Your task to perform on an android device: Clear the shopping cart on bestbuy.com. Add razer blade to the cart on bestbuy.com Image 0: 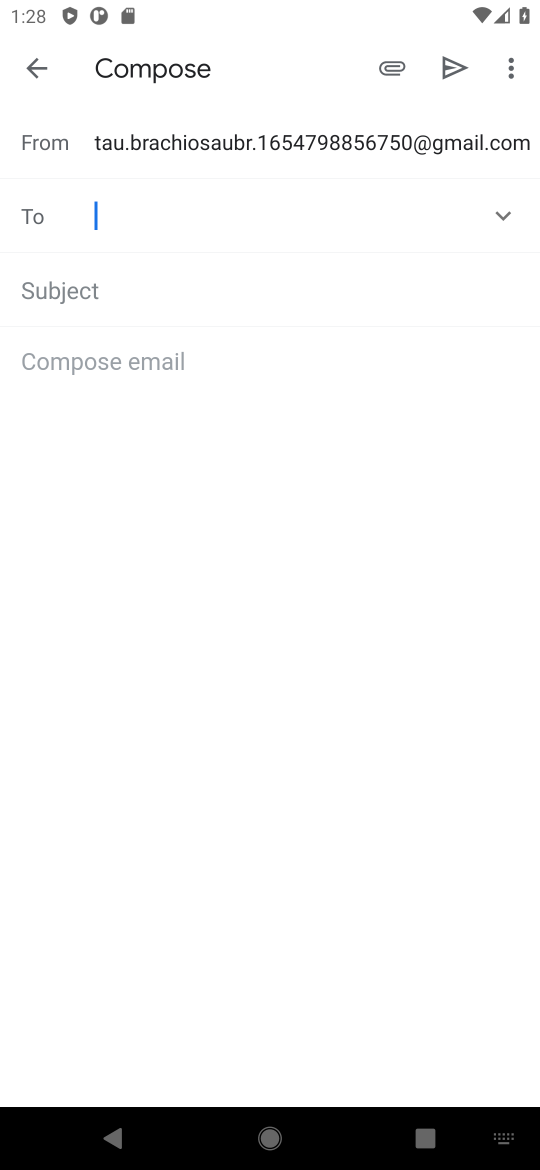
Step 0: press home button
Your task to perform on an android device: Clear the shopping cart on bestbuy.com. Add razer blade to the cart on bestbuy.com Image 1: 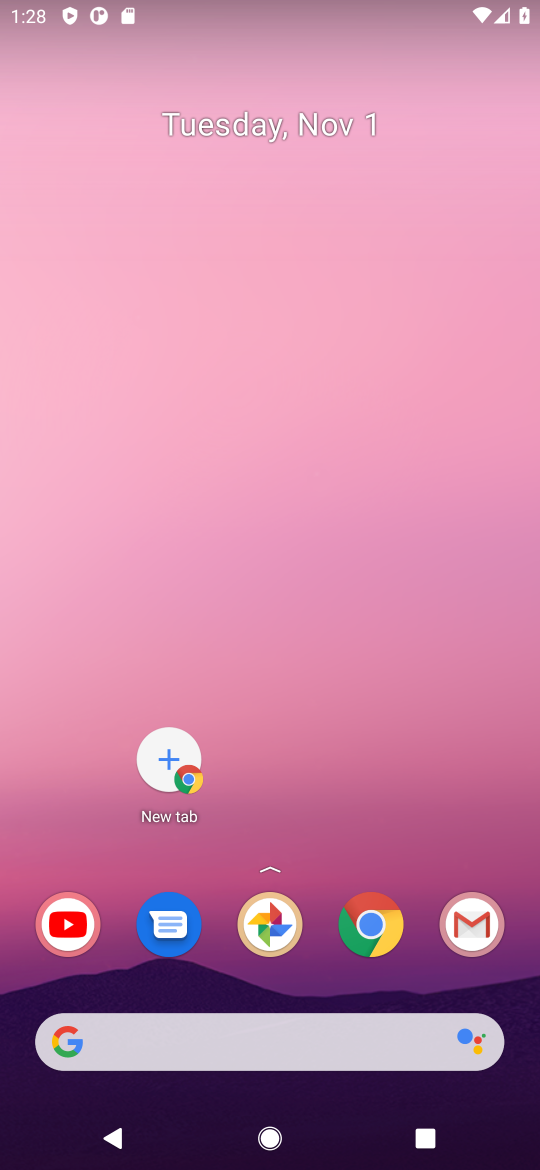
Step 1: click (369, 937)
Your task to perform on an android device: Clear the shopping cart on bestbuy.com. Add razer blade to the cart on bestbuy.com Image 2: 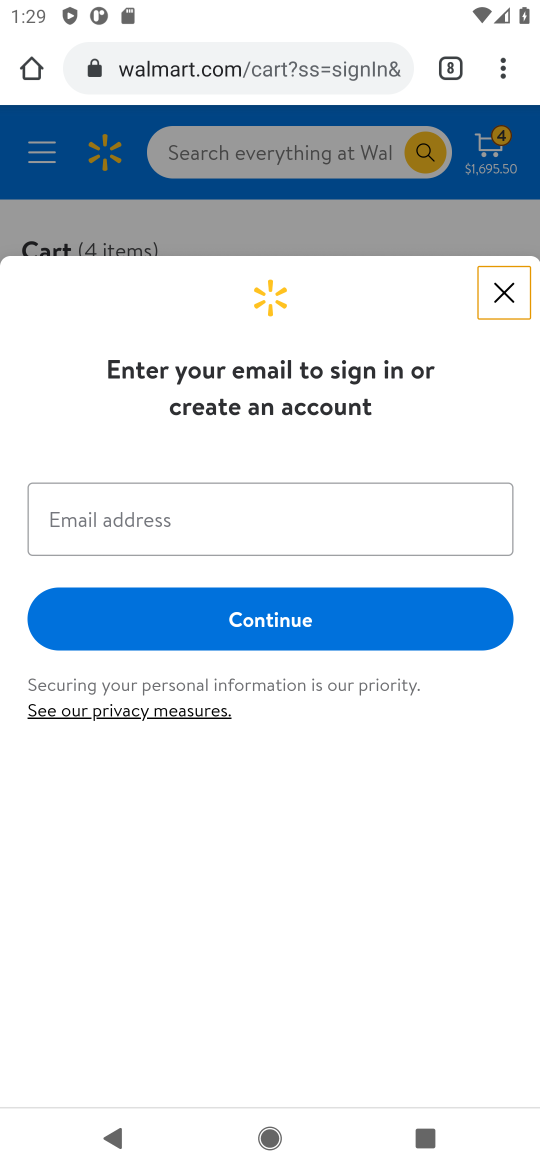
Step 2: click (235, 68)
Your task to perform on an android device: Clear the shopping cart on bestbuy.com. Add razer blade to the cart on bestbuy.com Image 3: 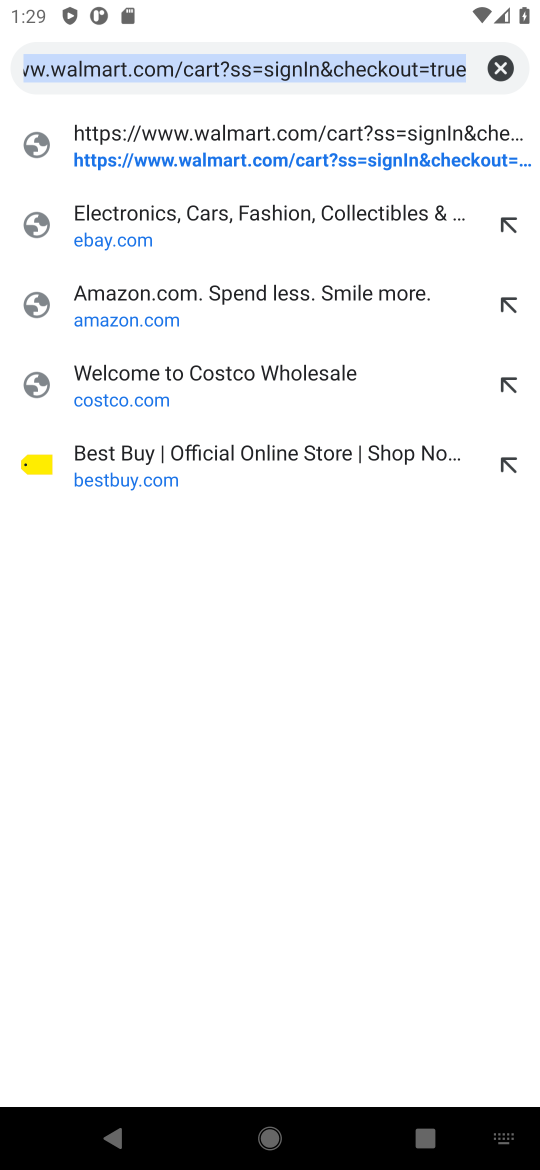
Step 3: click (493, 70)
Your task to perform on an android device: Clear the shopping cart on bestbuy.com. Add razer blade to the cart on bestbuy.com Image 4: 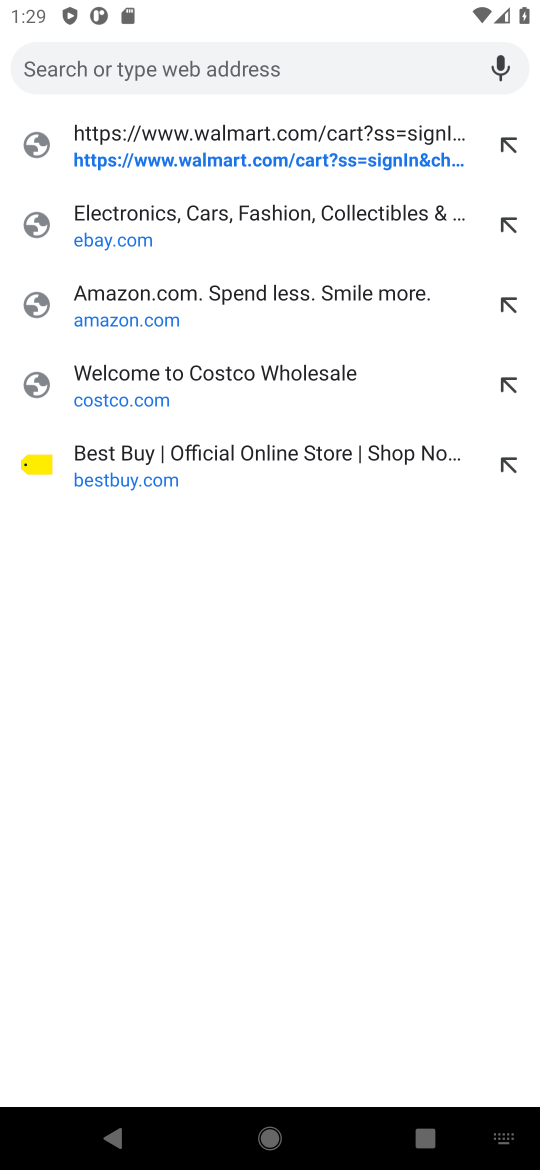
Step 4: click (114, 483)
Your task to perform on an android device: Clear the shopping cart on bestbuy.com. Add razer blade to the cart on bestbuy.com Image 5: 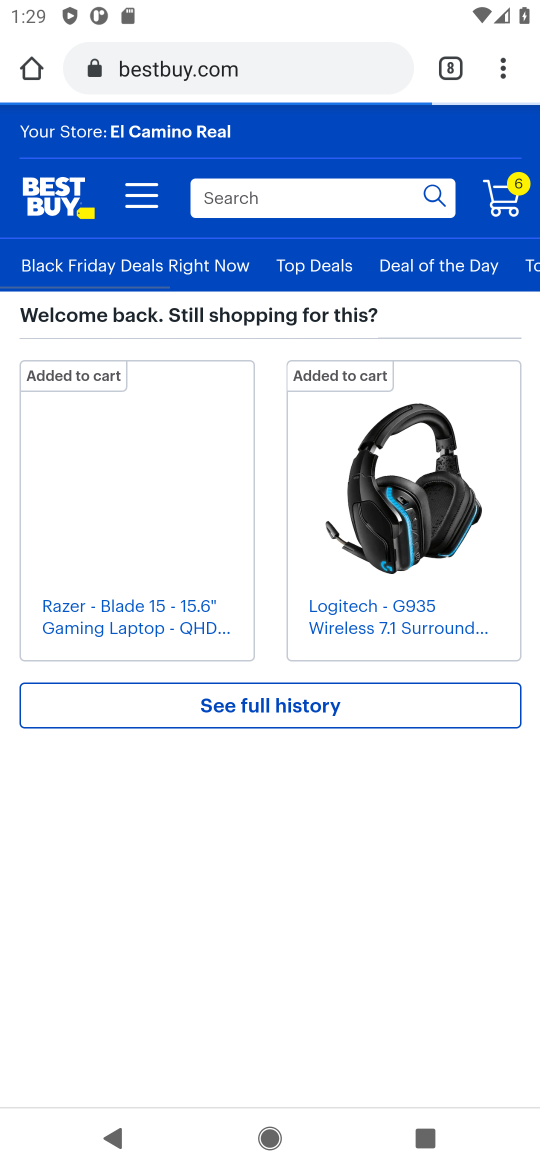
Step 5: click (505, 286)
Your task to perform on an android device: Clear the shopping cart on bestbuy.com. Add razer blade to the cart on bestbuy.com Image 6: 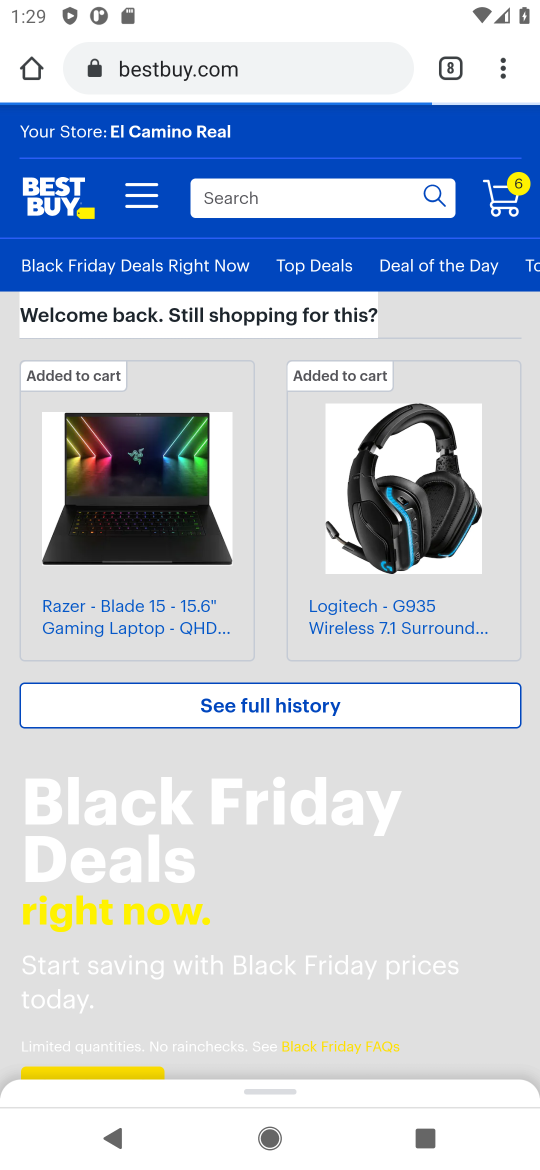
Step 6: click (247, 204)
Your task to perform on an android device: Clear the shopping cart on bestbuy.com. Add razer blade to the cart on bestbuy.com Image 7: 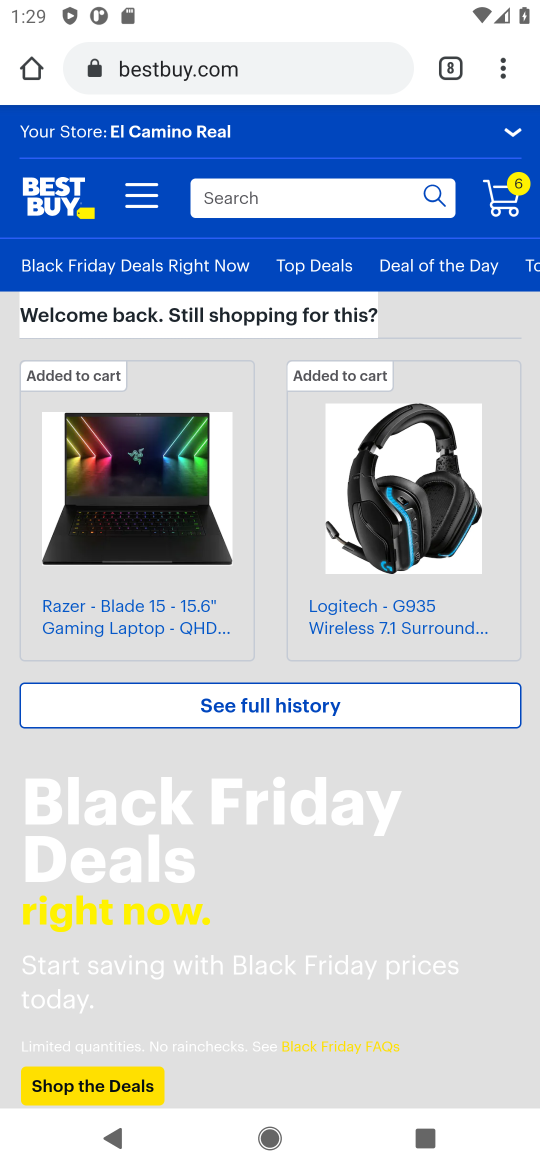
Step 7: click (232, 197)
Your task to perform on an android device: Clear the shopping cart on bestbuy.com. Add razer blade to the cart on bestbuy.com Image 8: 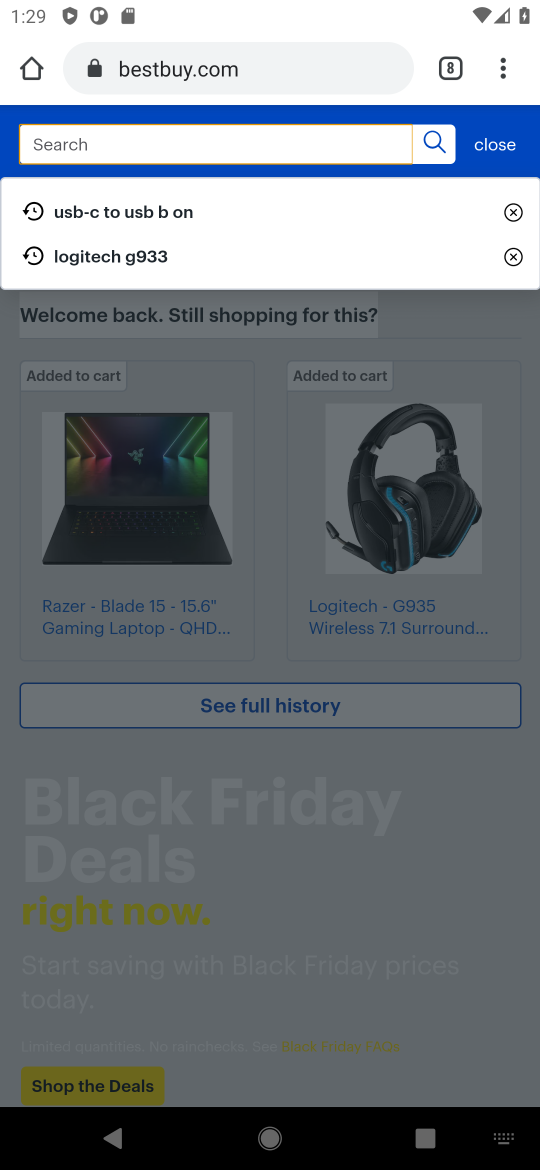
Step 8: type "razer blade"
Your task to perform on an android device: Clear the shopping cart on bestbuy.com. Add razer blade to the cart on bestbuy.com Image 9: 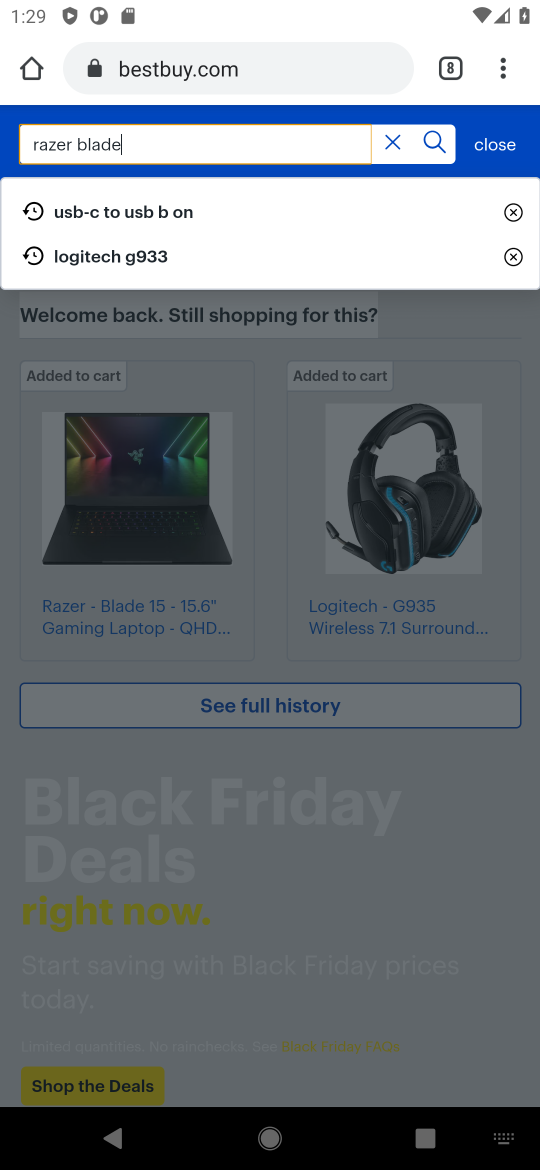
Step 9: type ""
Your task to perform on an android device: Clear the shopping cart on bestbuy.com. Add razer blade to the cart on bestbuy.com Image 10: 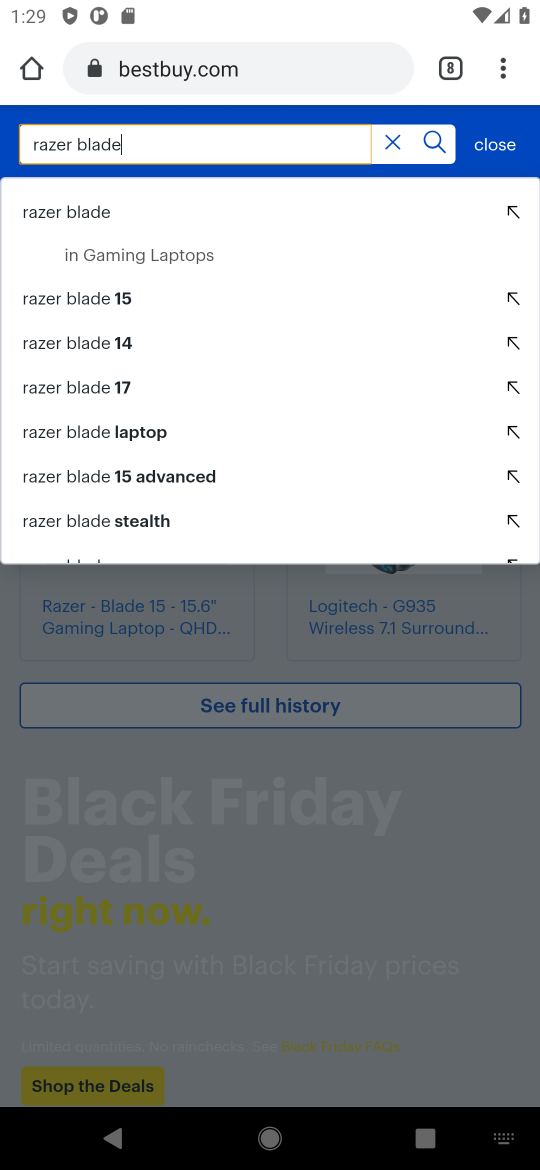
Step 10: click (31, 295)
Your task to perform on an android device: Clear the shopping cart on bestbuy.com. Add razer blade to the cart on bestbuy.com Image 11: 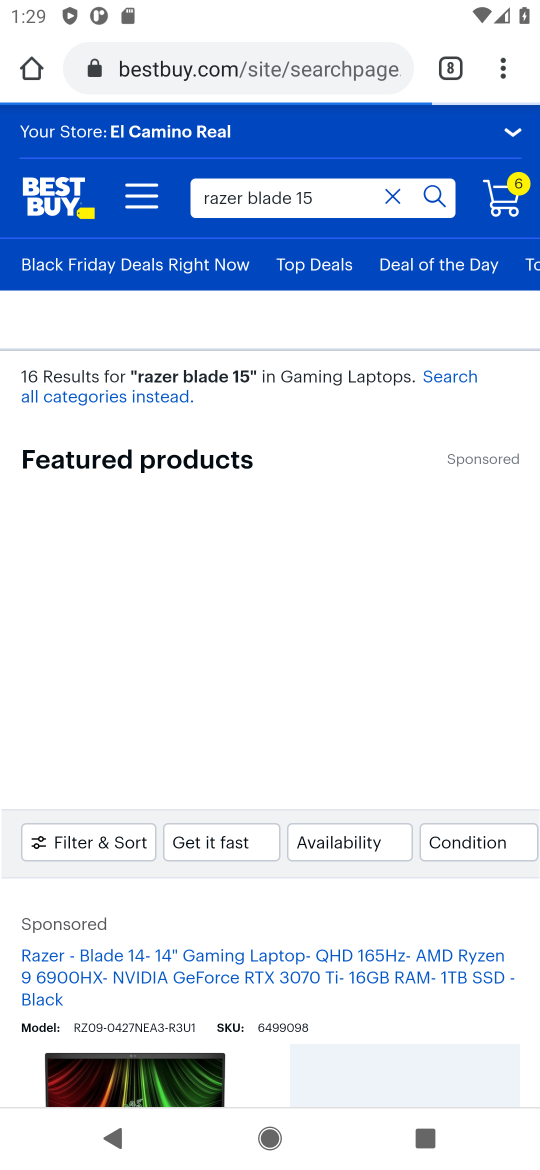
Step 11: drag from (215, 924) to (245, 313)
Your task to perform on an android device: Clear the shopping cart on bestbuy.com. Add razer blade to the cart on bestbuy.com Image 12: 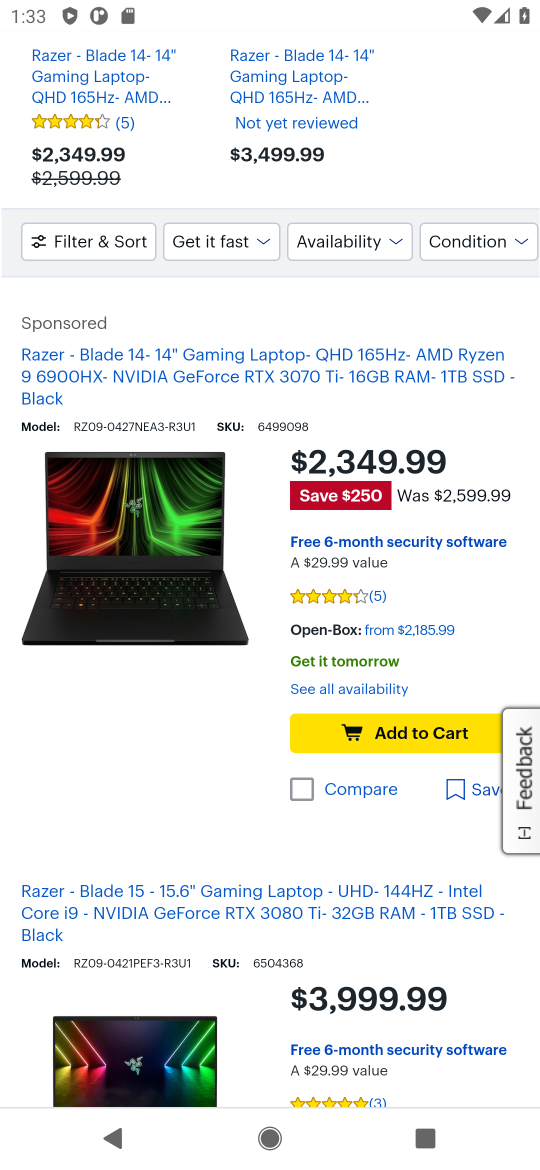
Step 12: click (406, 740)
Your task to perform on an android device: Clear the shopping cart on bestbuy.com. Add razer blade to the cart on bestbuy.com Image 13: 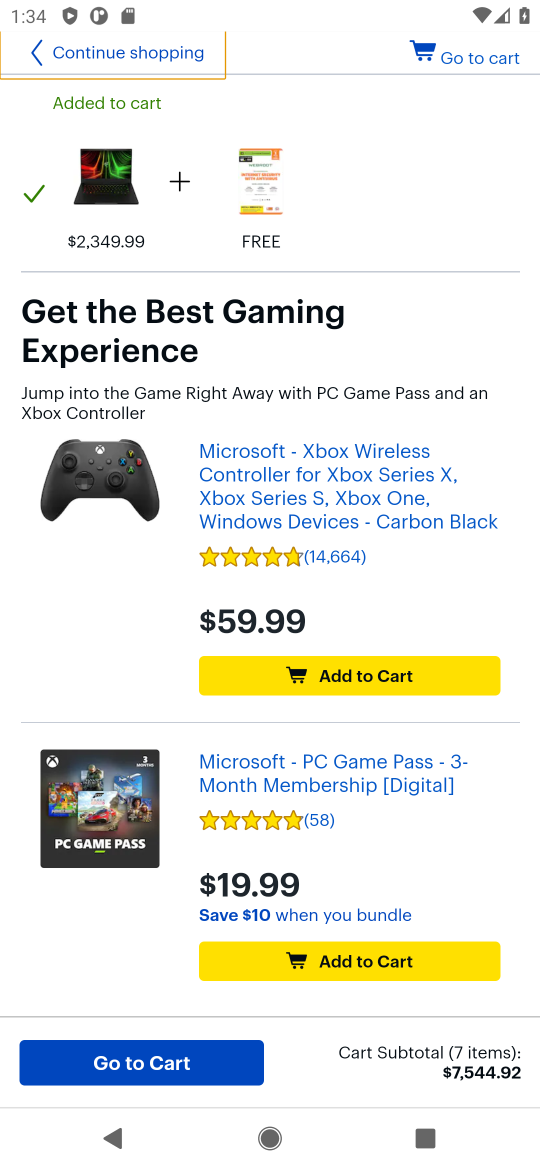
Step 13: click (206, 1063)
Your task to perform on an android device: Clear the shopping cart on bestbuy.com. Add razer blade to the cart on bestbuy.com Image 14: 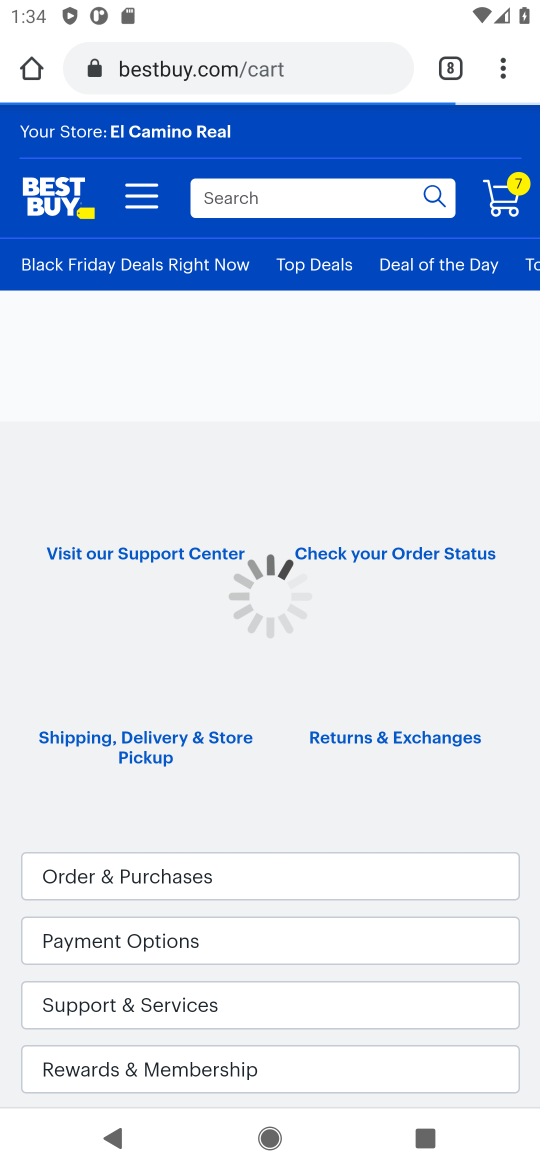
Step 14: task complete